Your task to perform on an android device: turn vacation reply on in the gmail app Image 0: 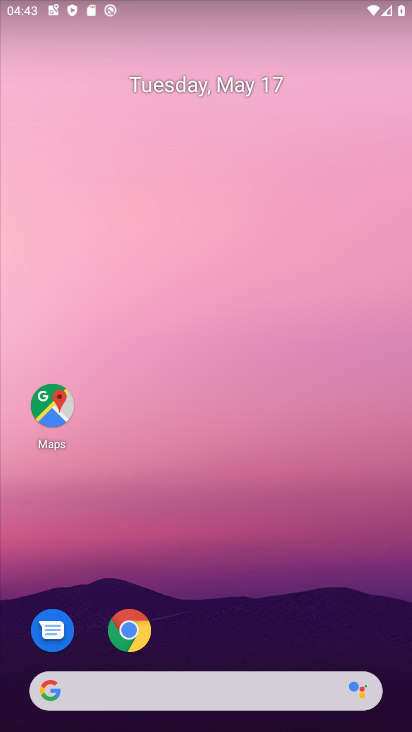
Step 0: drag from (291, 601) to (378, 66)
Your task to perform on an android device: turn vacation reply on in the gmail app Image 1: 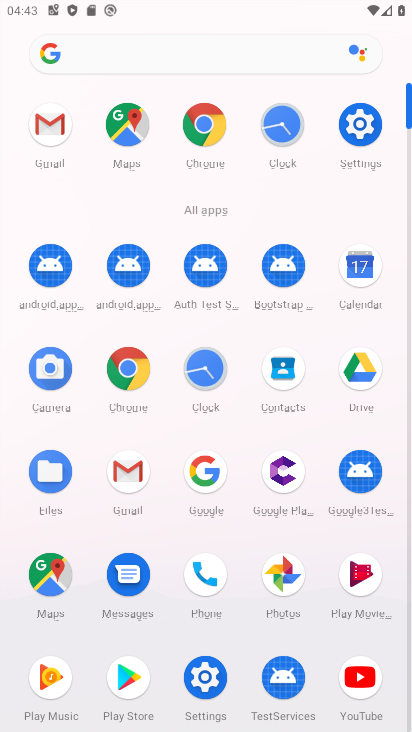
Step 1: click (116, 467)
Your task to perform on an android device: turn vacation reply on in the gmail app Image 2: 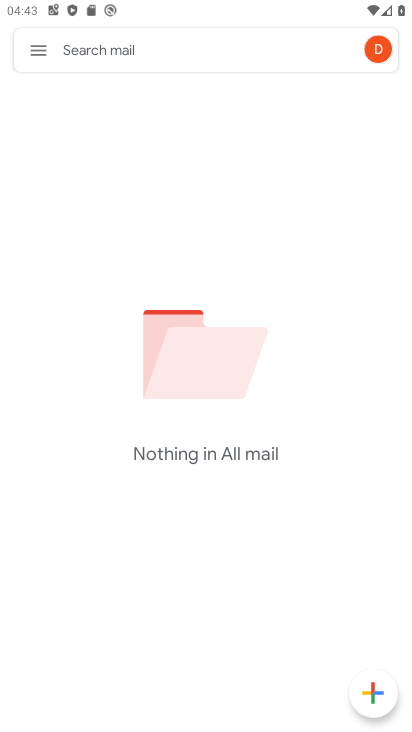
Step 2: click (39, 48)
Your task to perform on an android device: turn vacation reply on in the gmail app Image 3: 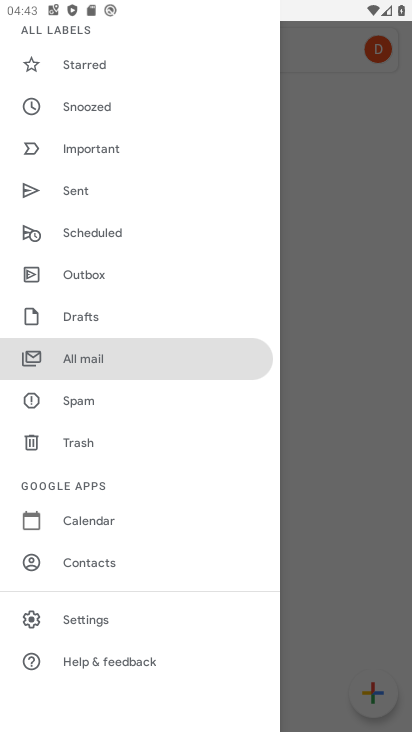
Step 3: click (90, 617)
Your task to perform on an android device: turn vacation reply on in the gmail app Image 4: 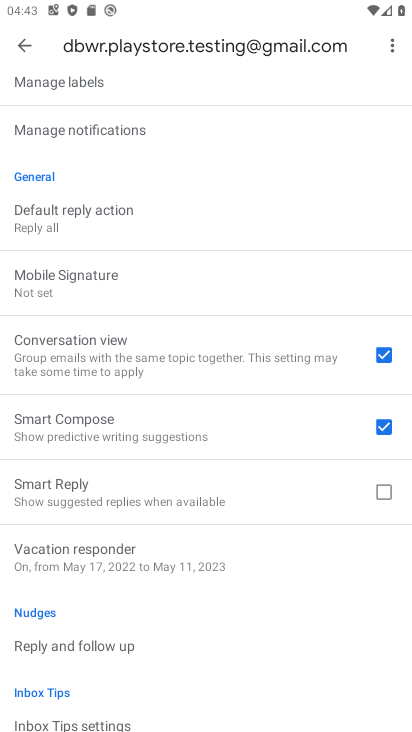
Step 4: click (109, 131)
Your task to perform on an android device: turn vacation reply on in the gmail app Image 5: 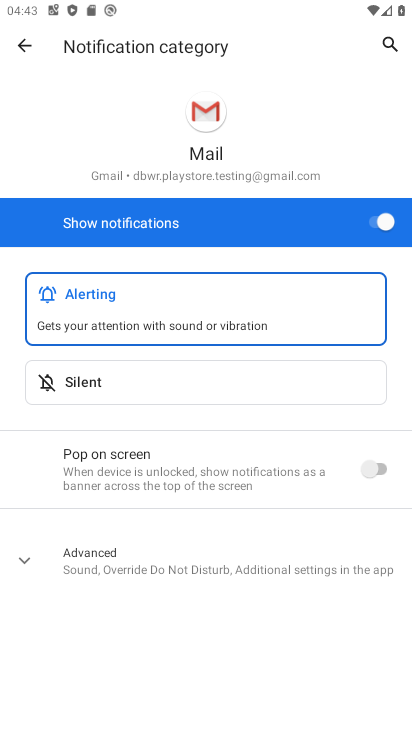
Step 5: click (19, 47)
Your task to perform on an android device: turn vacation reply on in the gmail app Image 6: 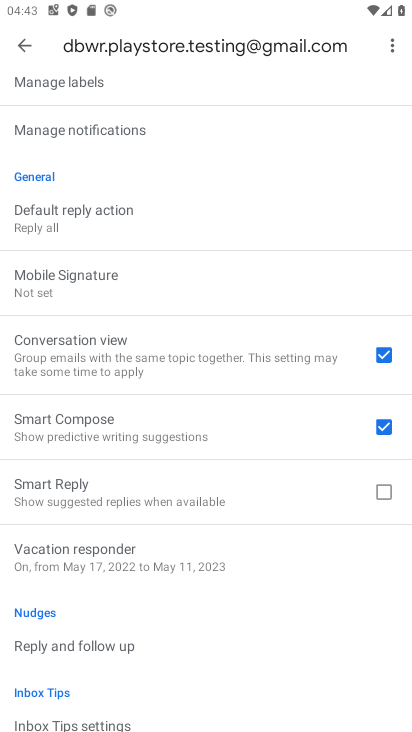
Step 6: drag from (137, 427) to (137, 164)
Your task to perform on an android device: turn vacation reply on in the gmail app Image 7: 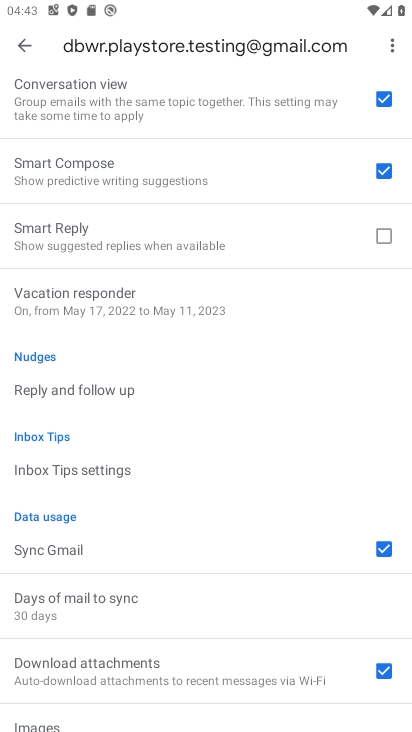
Step 7: click (55, 297)
Your task to perform on an android device: turn vacation reply on in the gmail app Image 8: 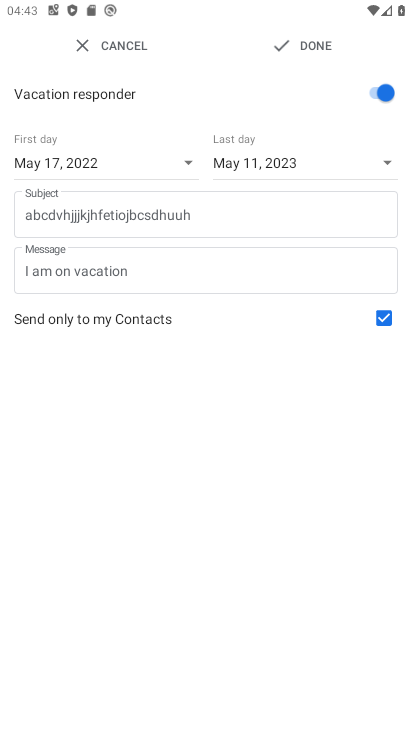
Step 8: click (318, 45)
Your task to perform on an android device: turn vacation reply on in the gmail app Image 9: 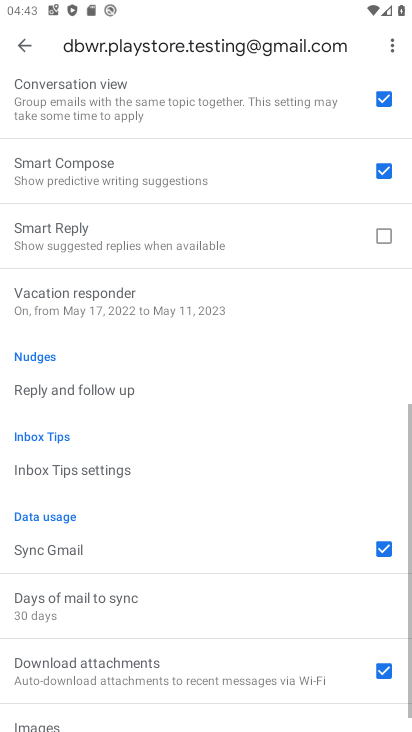
Step 9: task complete